Your task to perform on an android device: What's the weather? Image 0: 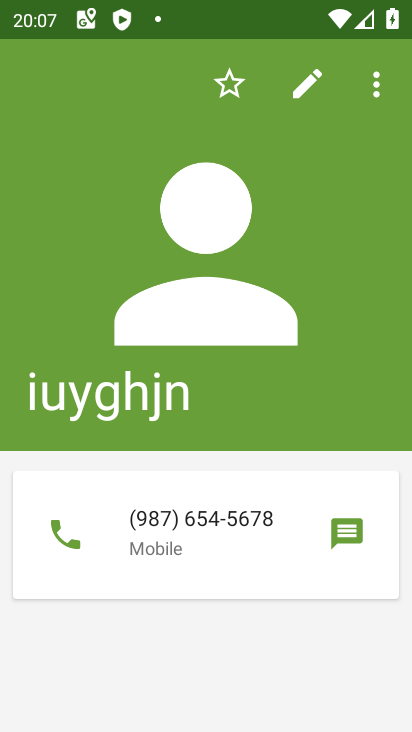
Step 0: press home button
Your task to perform on an android device: What's the weather? Image 1: 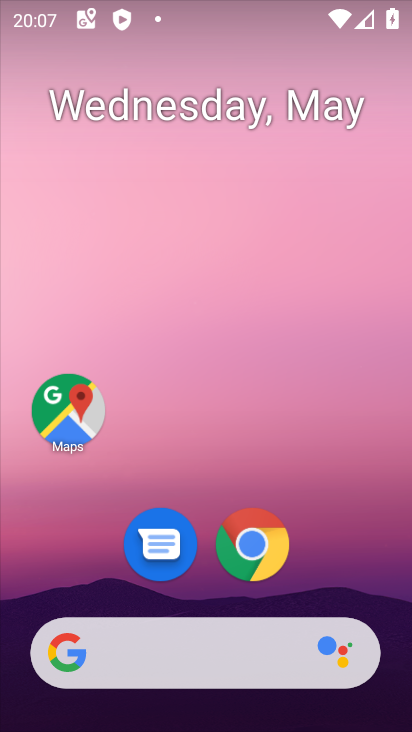
Step 1: click (170, 653)
Your task to perform on an android device: What's the weather? Image 2: 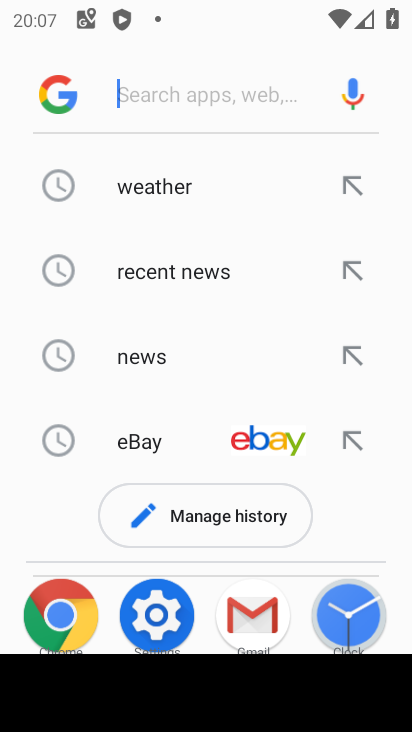
Step 2: click (241, 204)
Your task to perform on an android device: What's the weather? Image 3: 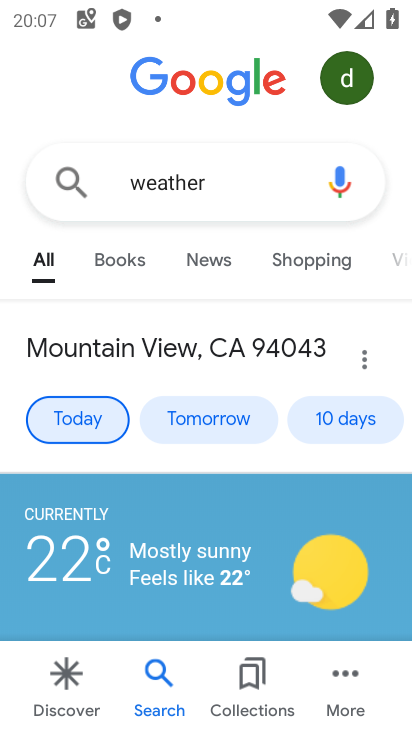
Step 3: task complete